Your task to perform on an android device: Open the map Image 0: 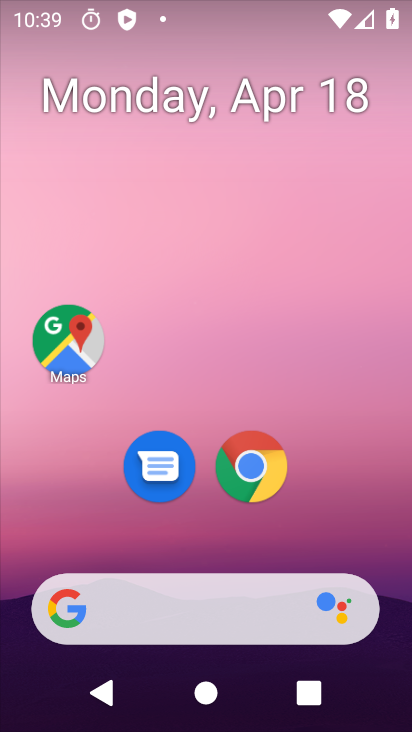
Step 0: drag from (286, 453) to (293, 190)
Your task to perform on an android device: Open the map Image 1: 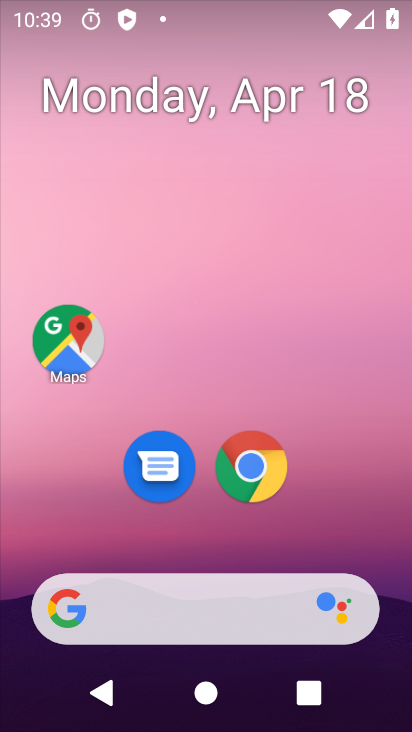
Step 1: click (68, 349)
Your task to perform on an android device: Open the map Image 2: 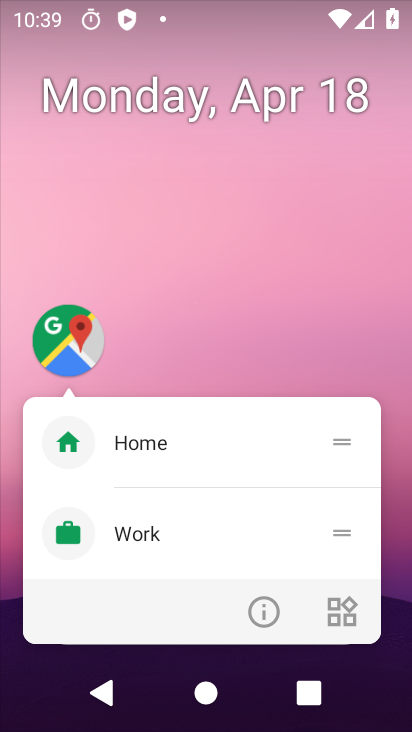
Step 2: click (67, 331)
Your task to perform on an android device: Open the map Image 3: 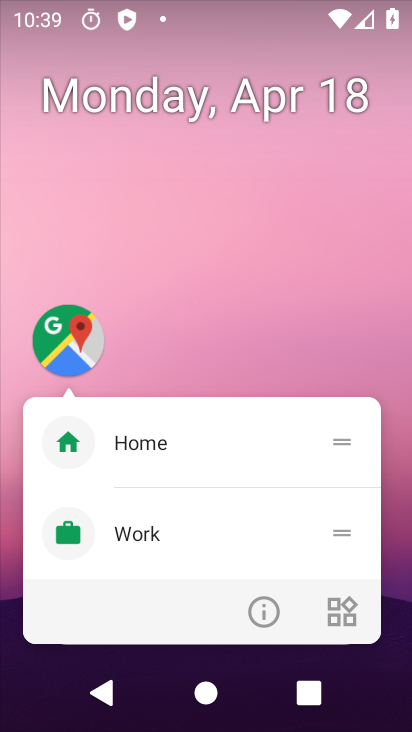
Step 3: click (67, 331)
Your task to perform on an android device: Open the map Image 4: 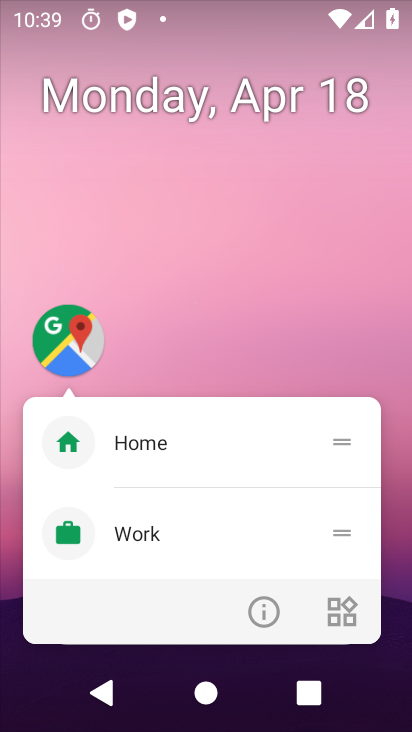
Step 4: click (67, 331)
Your task to perform on an android device: Open the map Image 5: 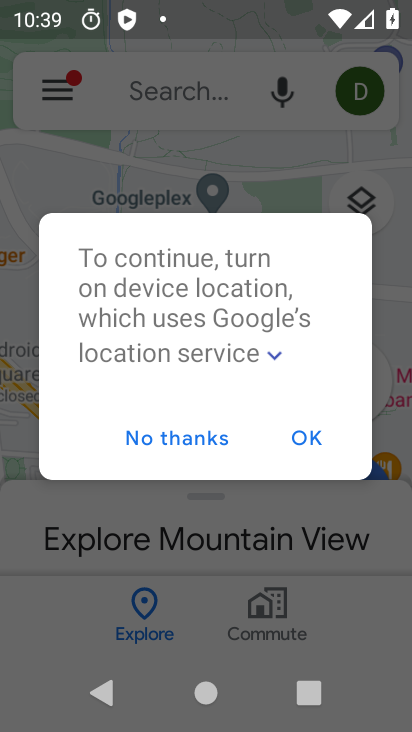
Step 5: click (212, 444)
Your task to perform on an android device: Open the map Image 6: 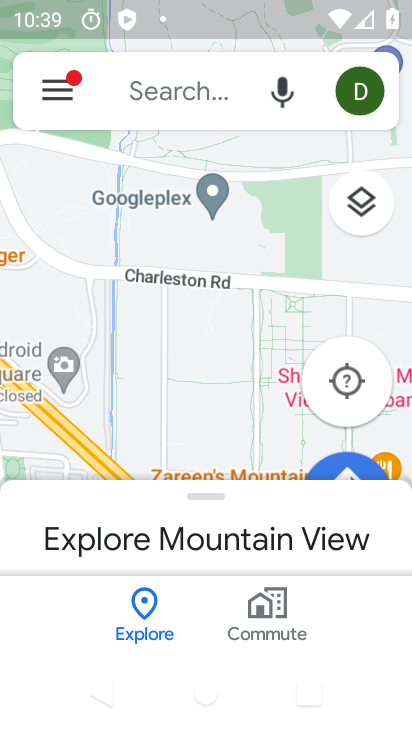
Step 6: task complete